Your task to perform on an android device: see creations saved in the google photos Image 0: 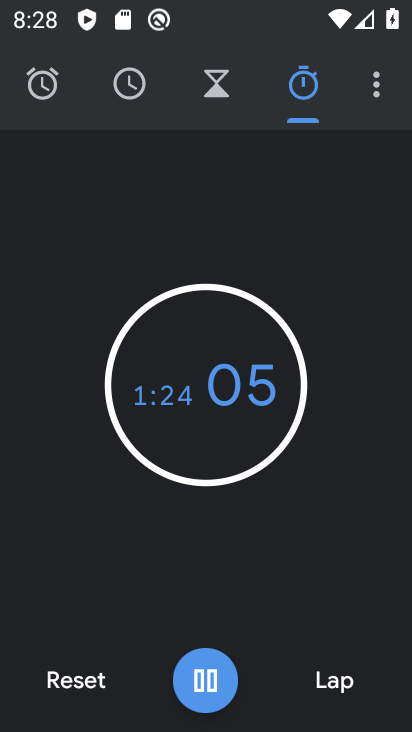
Step 0: press home button
Your task to perform on an android device: see creations saved in the google photos Image 1: 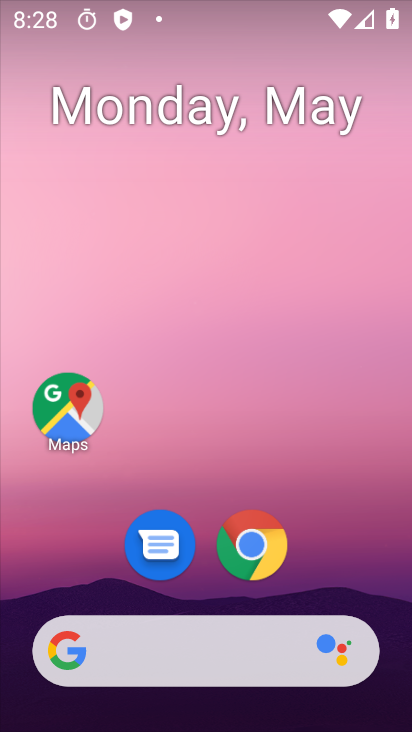
Step 1: drag from (221, 475) to (310, 98)
Your task to perform on an android device: see creations saved in the google photos Image 2: 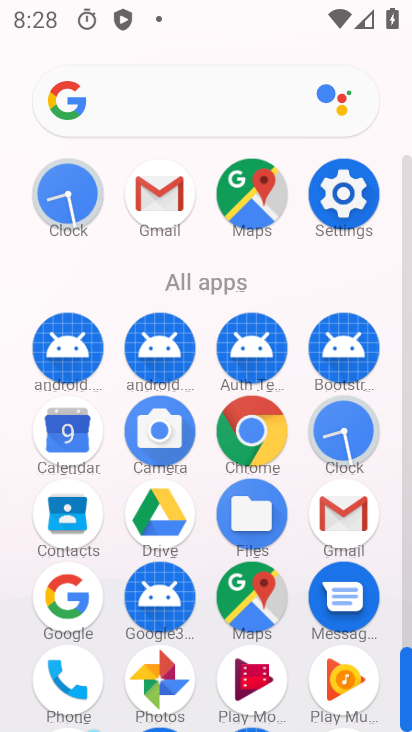
Step 2: click (164, 690)
Your task to perform on an android device: see creations saved in the google photos Image 3: 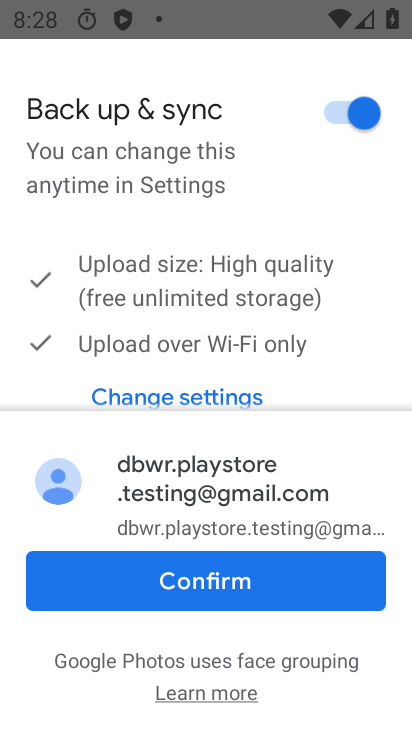
Step 3: click (221, 591)
Your task to perform on an android device: see creations saved in the google photos Image 4: 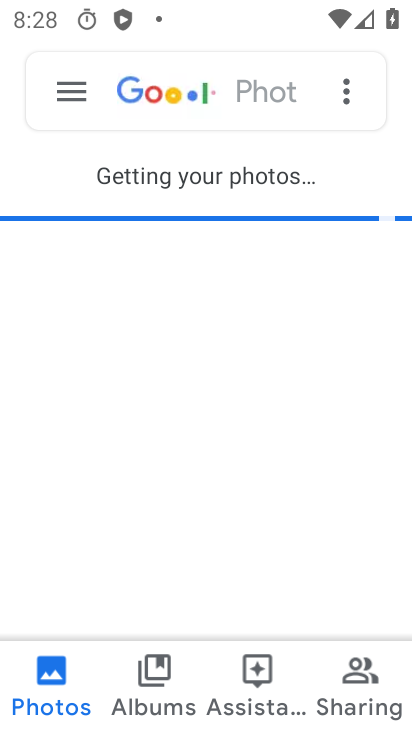
Step 4: click (246, 677)
Your task to perform on an android device: see creations saved in the google photos Image 5: 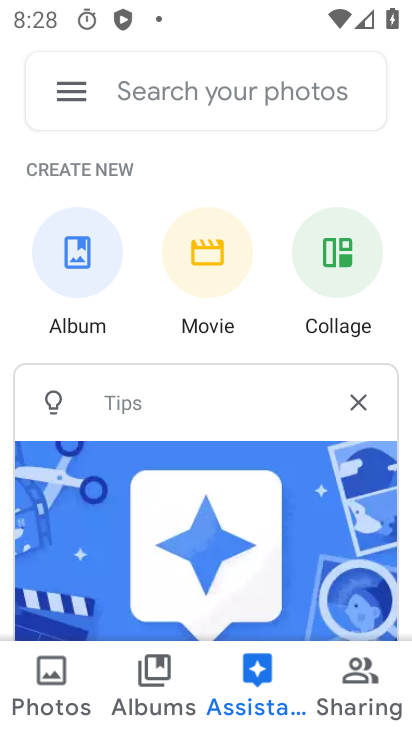
Step 5: drag from (242, 459) to (306, 160)
Your task to perform on an android device: see creations saved in the google photos Image 6: 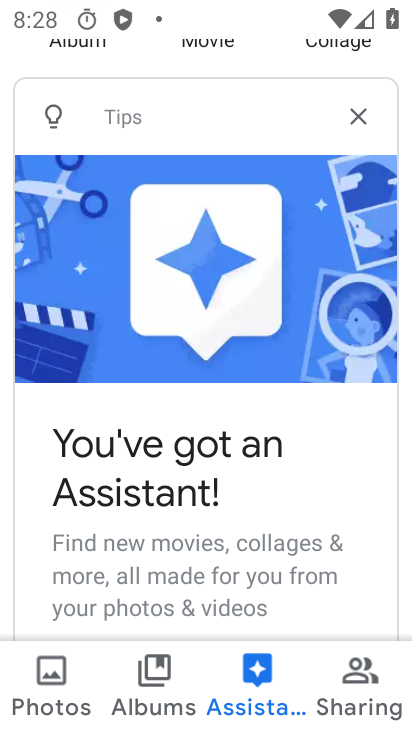
Step 6: drag from (204, 547) to (272, 223)
Your task to perform on an android device: see creations saved in the google photos Image 7: 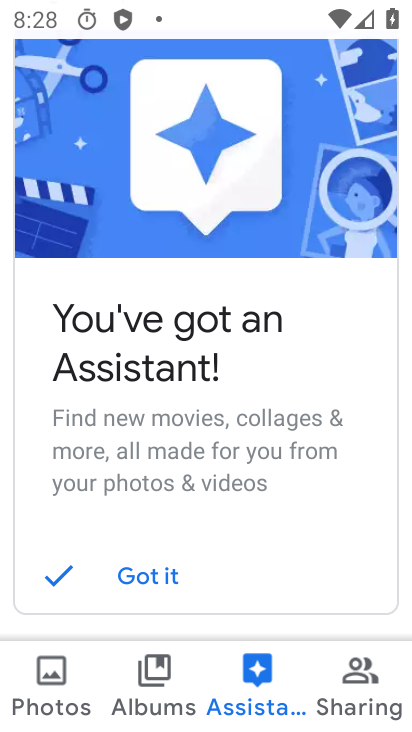
Step 7: click (94, 577)
Your task to perform on an android device: see creations saved in the google photos Image 8: 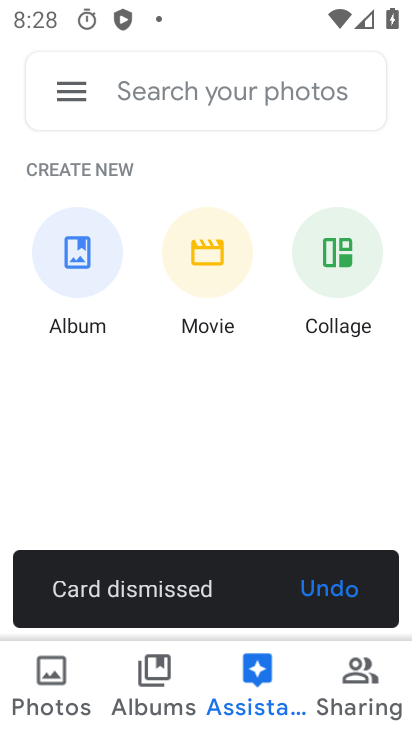
Step 8: drag from (198, 492) to (295, 162)
Your task to perform on an android device: see creations saved in the google photos Image 9: 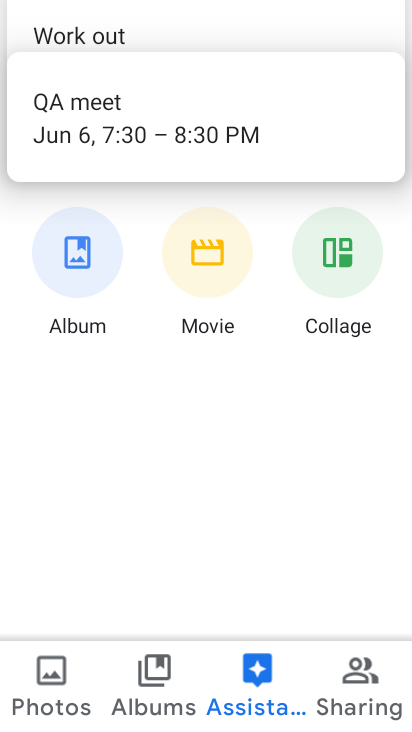
Step 9: click (75, 99)
Your task to perform on an android device: see creations saved in the google photos Image 10: 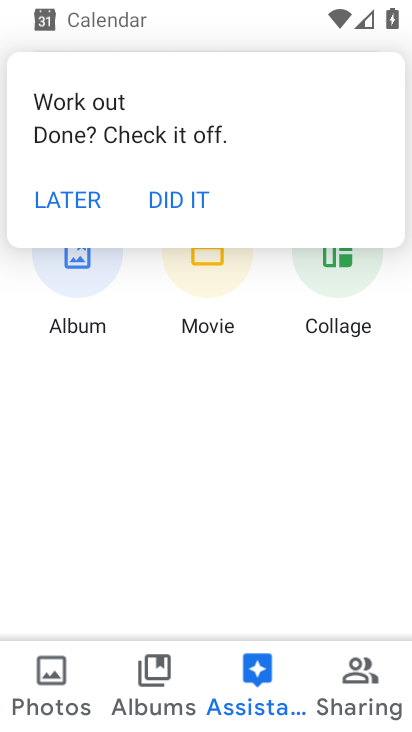
Step 10: task complete